Your task to perform on an android device: open app "Spotify" (install if not already installed), go to login, and select forgot password Image 0: 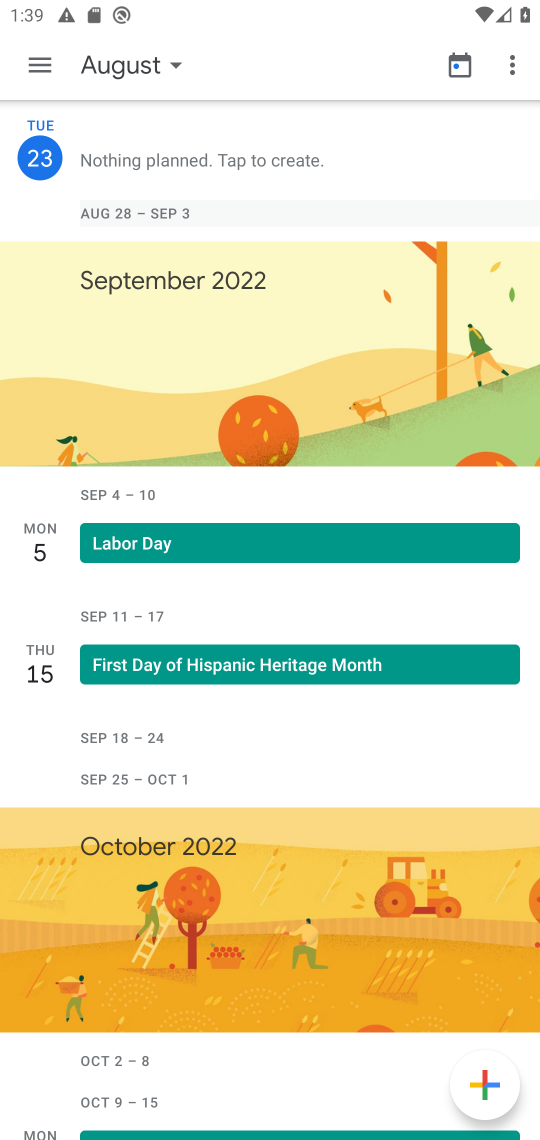
Step 0: press home button
Your task to perform on an android device: open app "Spotify" (install if not already installed), go to login, and select forgot password Image 1: 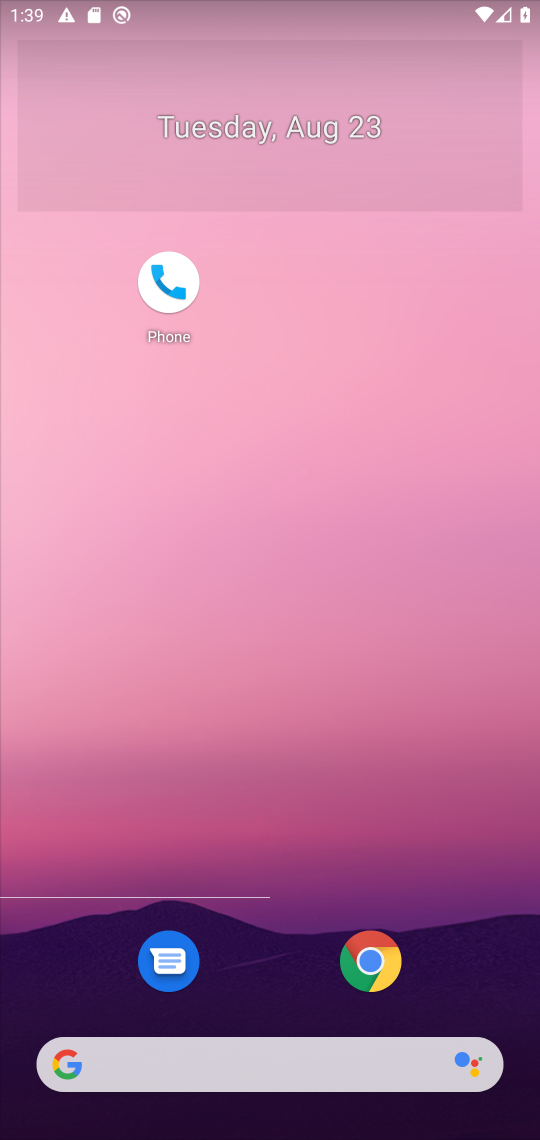
Step 1: drag from (257, 996) to (271, 329)
Your task to perform on an android device: open app "Spotify" (install if not already installed), go to login, and select forgot password Image 2: 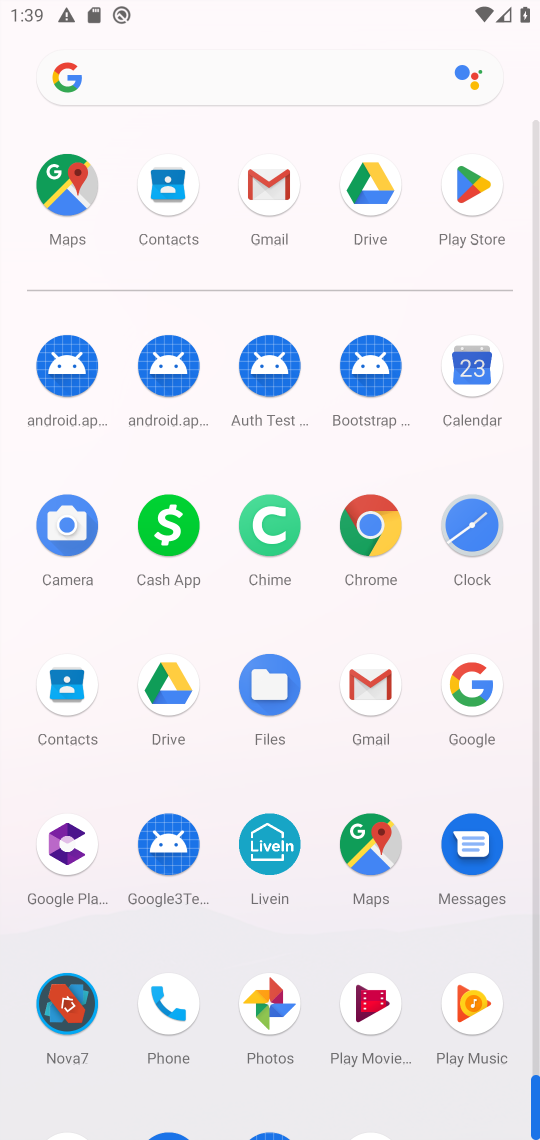
Step 2: click (461, 211)
Your task to perform on an android device: open app "Spotify" (install if not already installed), go to login, and select forgot password Image 3: 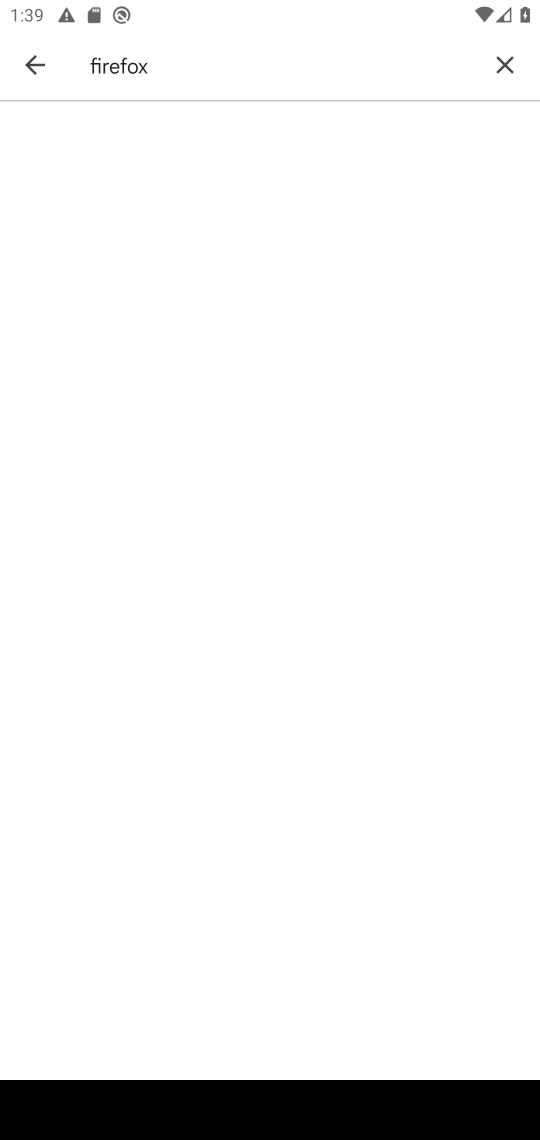
Step 3: click (496, 60)
Your task to perform on an android device: open app "Spotify" (install if not already installed), go to login, and select forgot password Image 4: 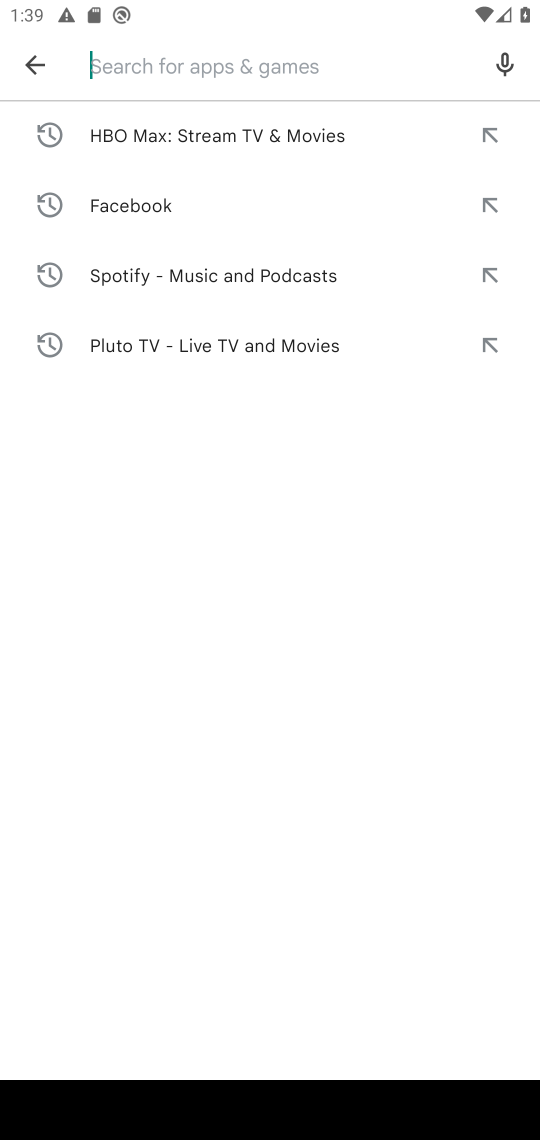
Step 4: type "potify"
Your task to perform on an android device: open app "Spotify" (install if not already installed), go to login, and select forgot password Image 5: 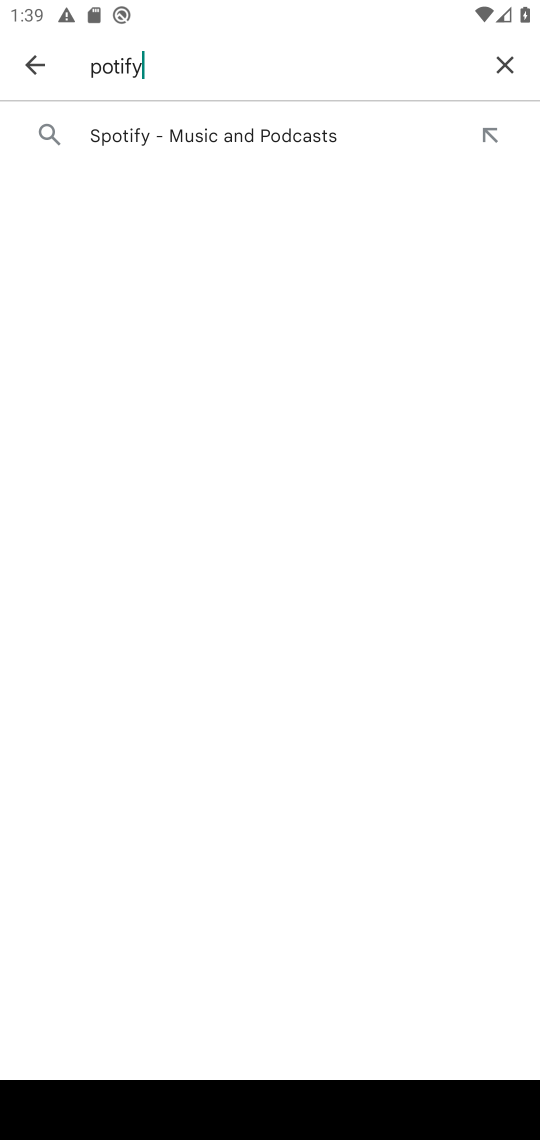
Step 5: click (191, 126)
Your task to perform on an android device: open app "Spotify" (install if not already installed), go to login, and select forgot password Image 6: 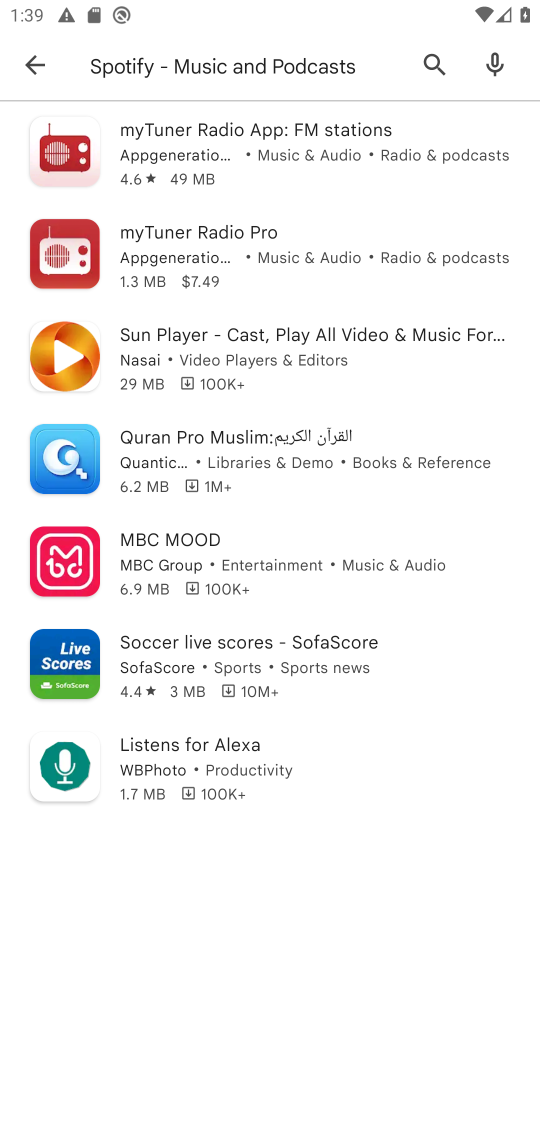
Step 6: task complete